Your task to perform on an android device: Open eBay Image 0: 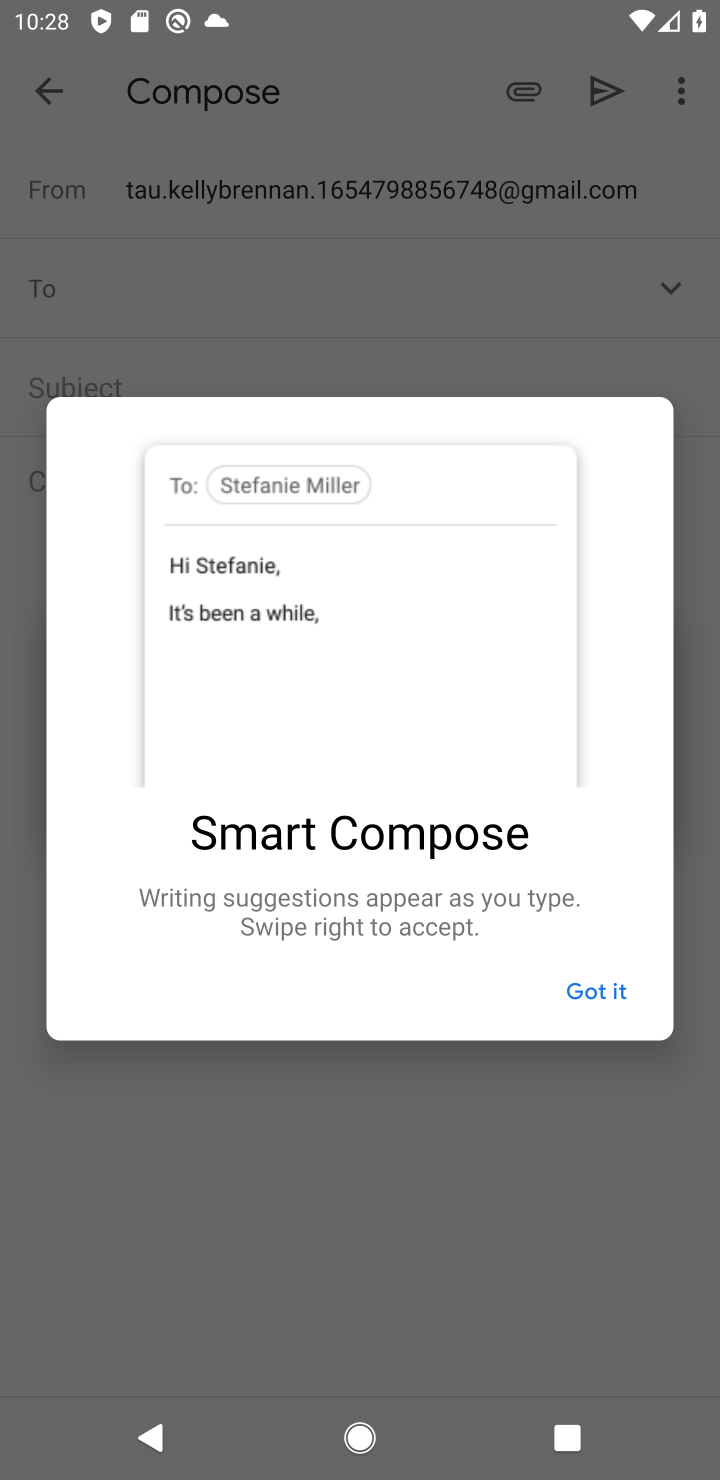
Step 0: press home button
Your task to perform on an android device: Open eBay Image 1: 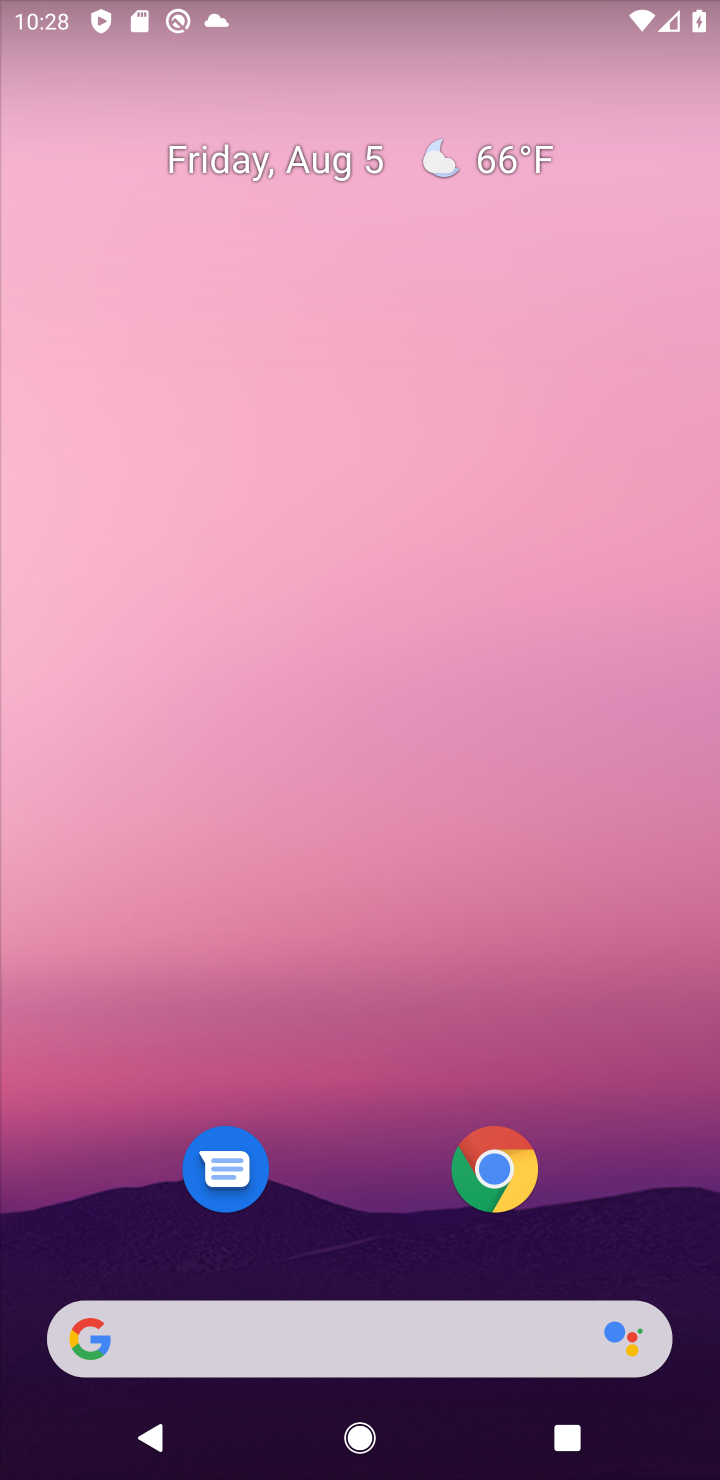
Step 1: click (490, 1171)
Your task to perform on an android device: Open eBay Image 2: 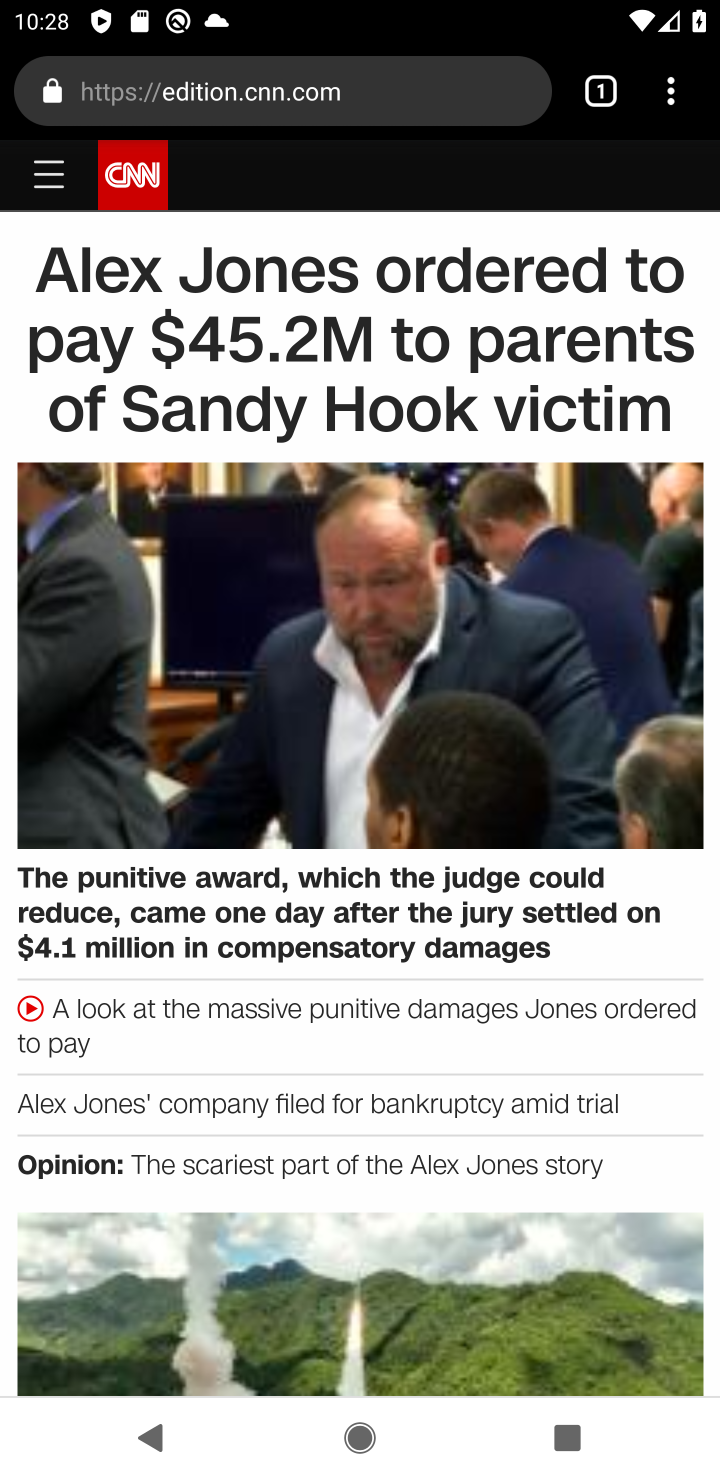
Step 2: click (420, 60)
Your task to perform on an android device: Open eBay Image 3: 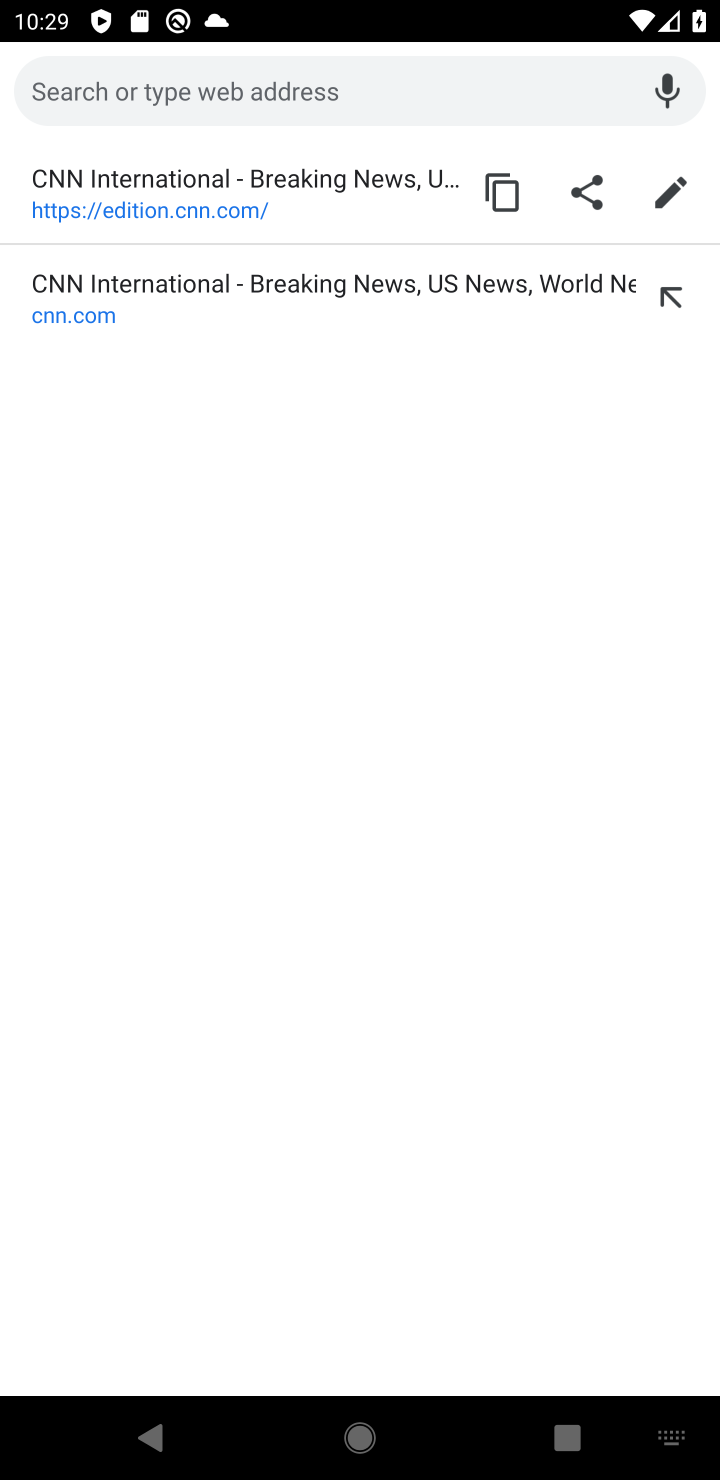
Step 3: type "eBay"
Your task to perform on an android device: Open eBay Image 4: 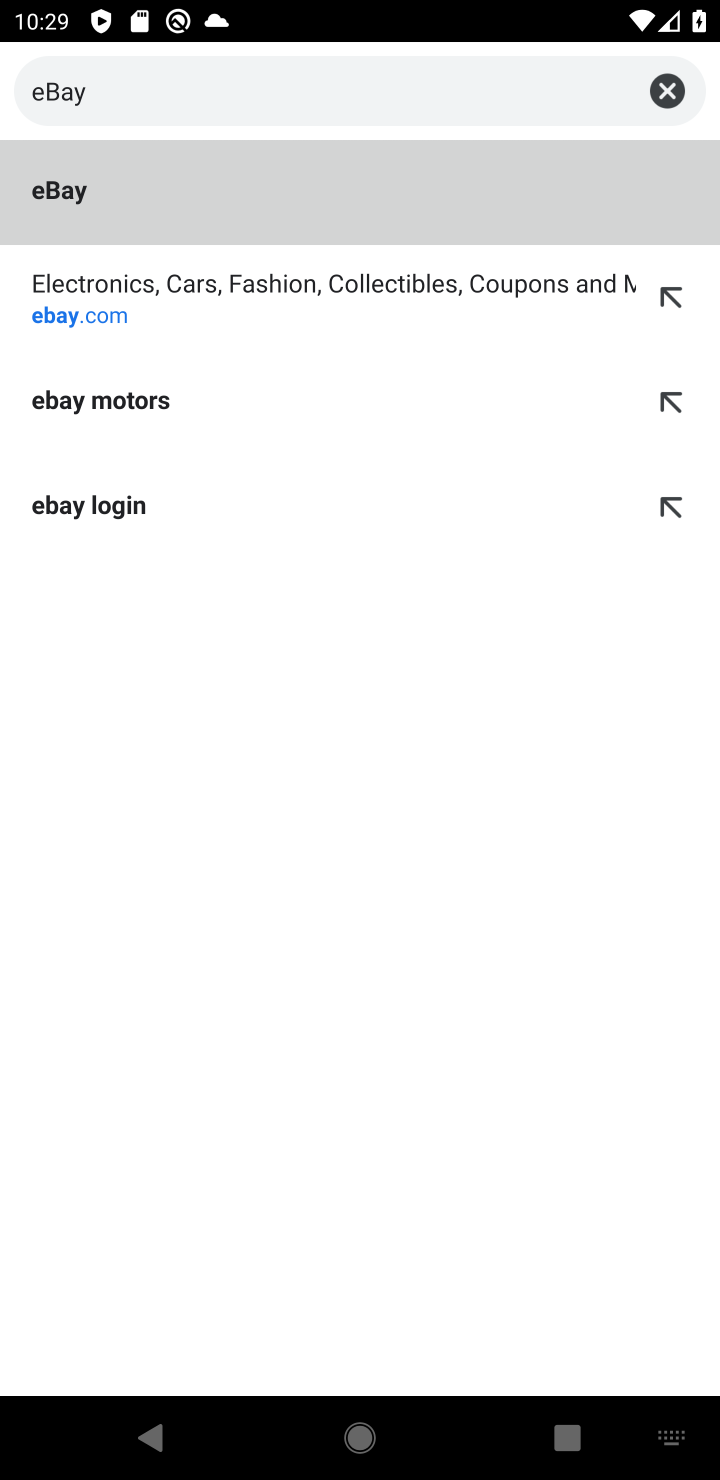
Step 4: click (117, 272)
Your task to perform on an android device: Open eBay Image 5: 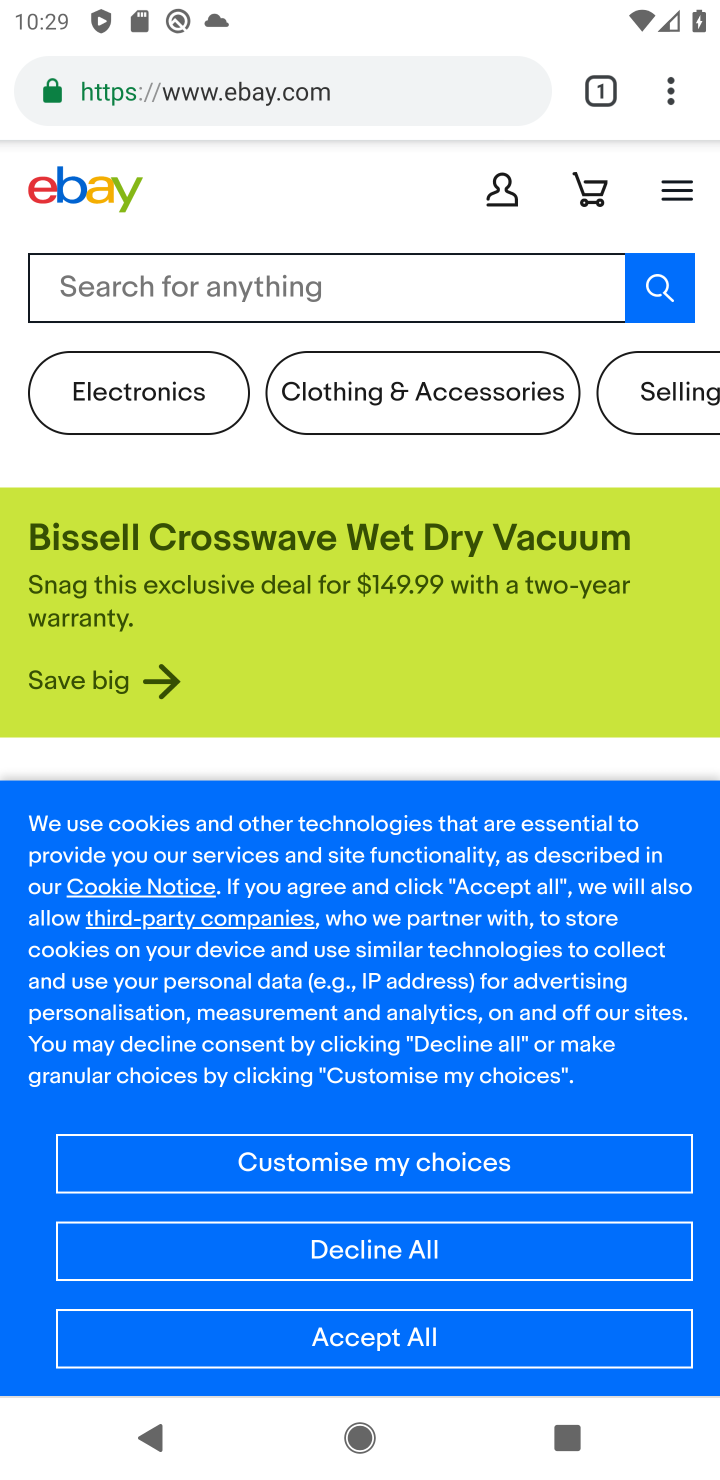
Step 5: click (385, 1350)
Your task to perform on an android device: Open eBay Image 6: 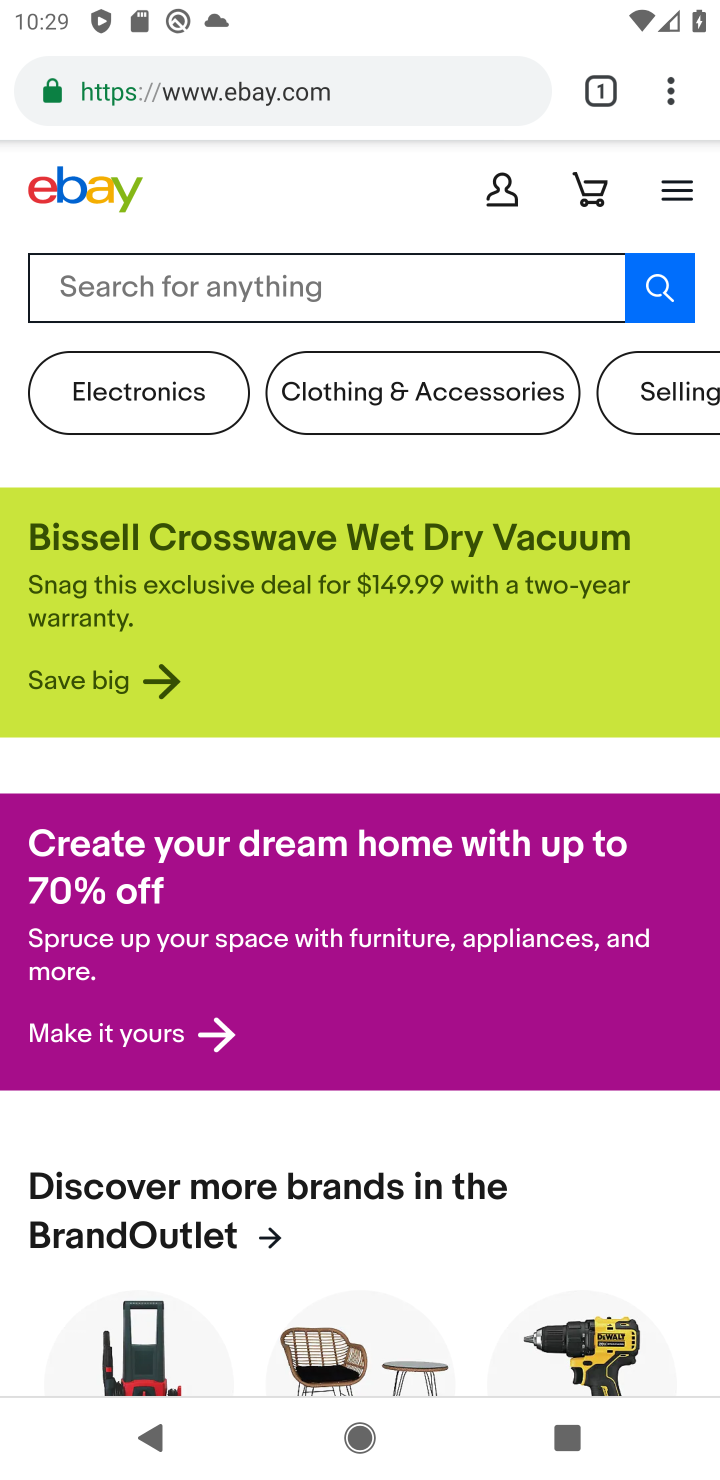
Step 6: task complete